Your task to perform on an android device: delete location history Image 0: 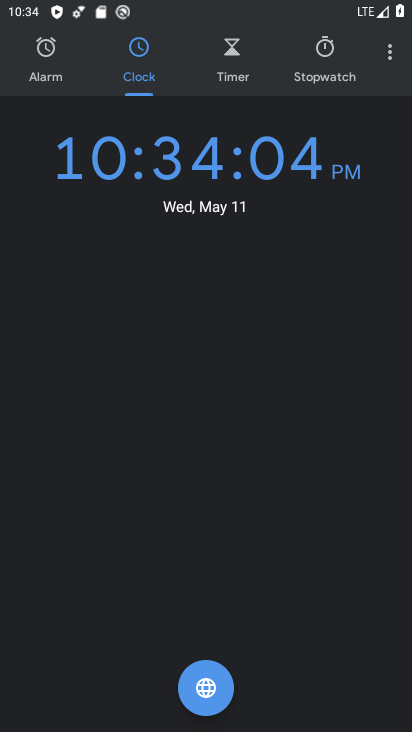
Step 0: press home button
Your task to perform on an android device: delete location history Image 1: 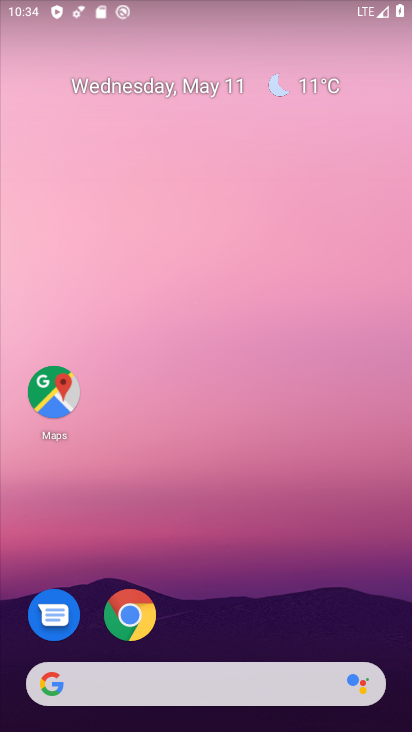
Step 1: click (56, 380)
Your task to perform on an android device: delete location history Image 2: 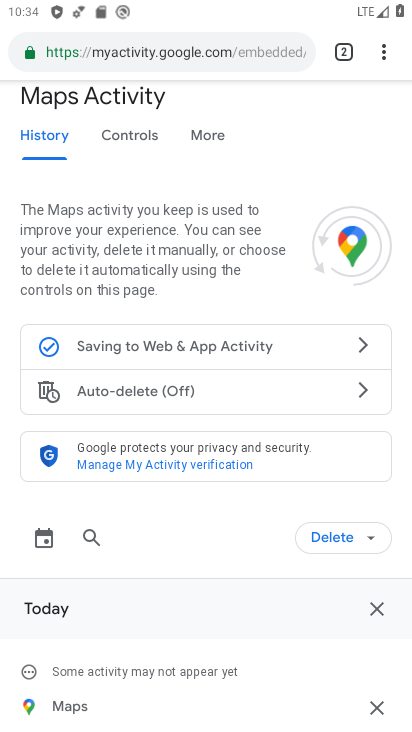
Step 2: click (356, 540)
Your task to perform on an android device: delete location history Image 3: 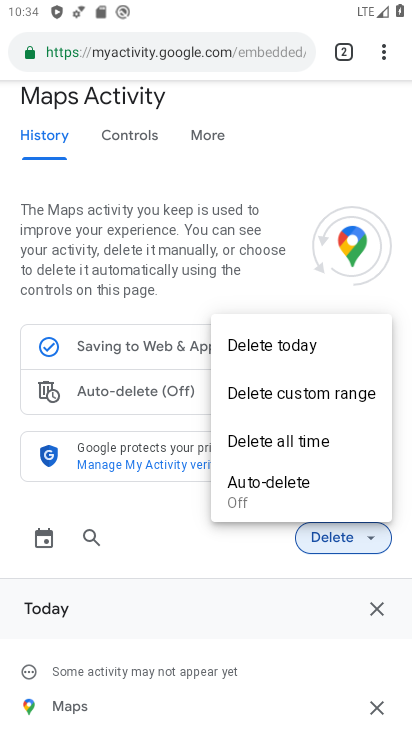
Step 3: click (297, 448)
Your task to perform on an android device: delete location history Image 4: 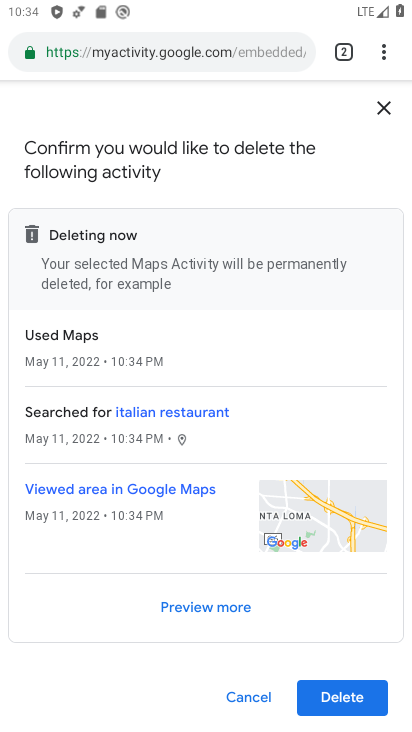
Step 4: click (359, 689)
Your task to perform on an android device: delete location history Image 5: 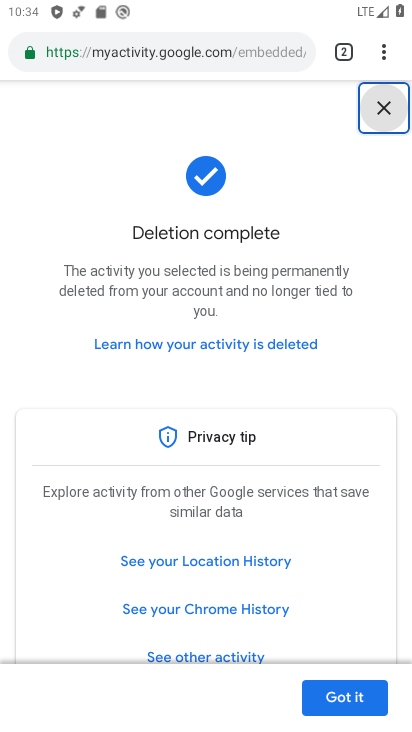
Step 5: task complete